Your task to perform on an android device: Open Amazon Image 0: 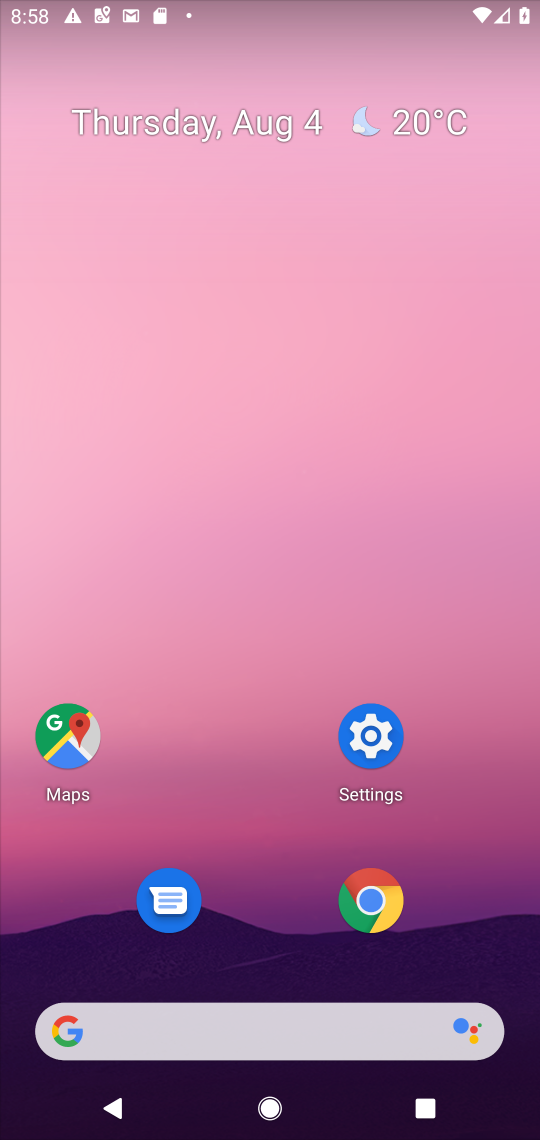
Step 0: click (371, 898)
Your task to perform on an android device: Open Amazon Image 1: 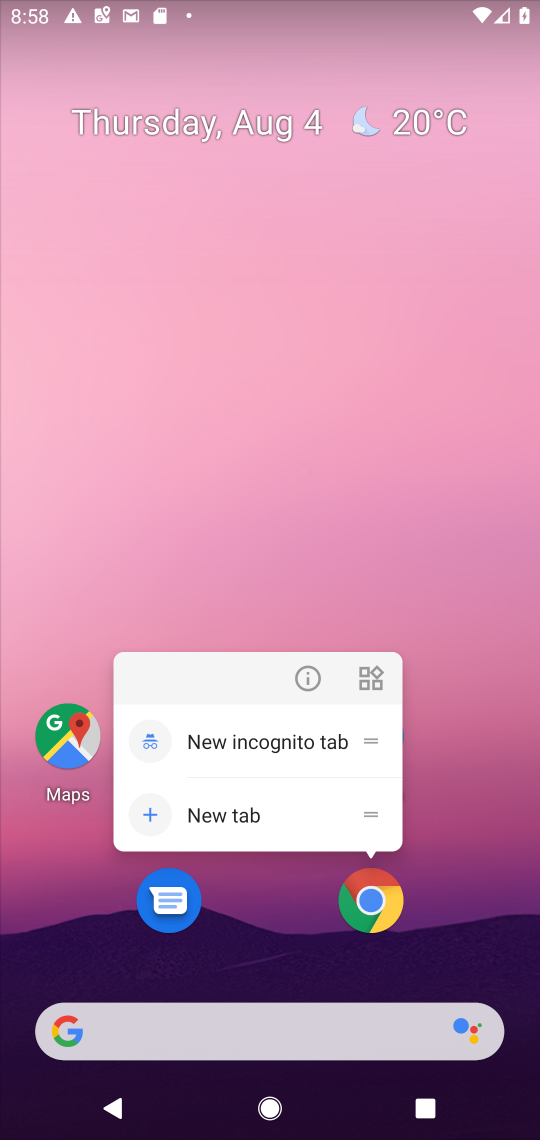
Step 1: click (371, 902)
Your task to perform on an android device: Open Amazon Image 2: 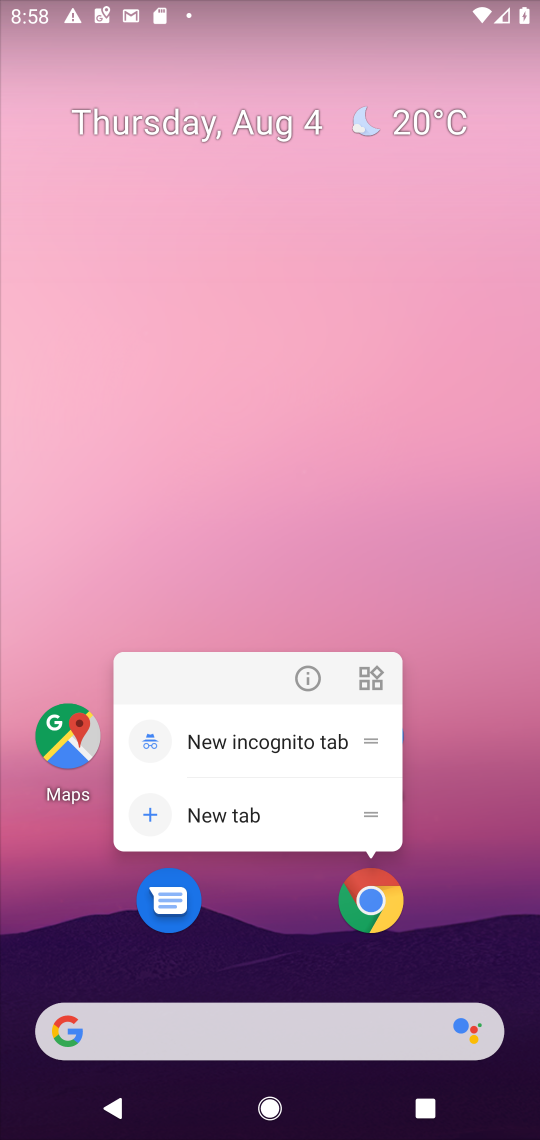
Step 2: click (371, 905)
Your task to perform on an android device: Open Amazon Image 3: 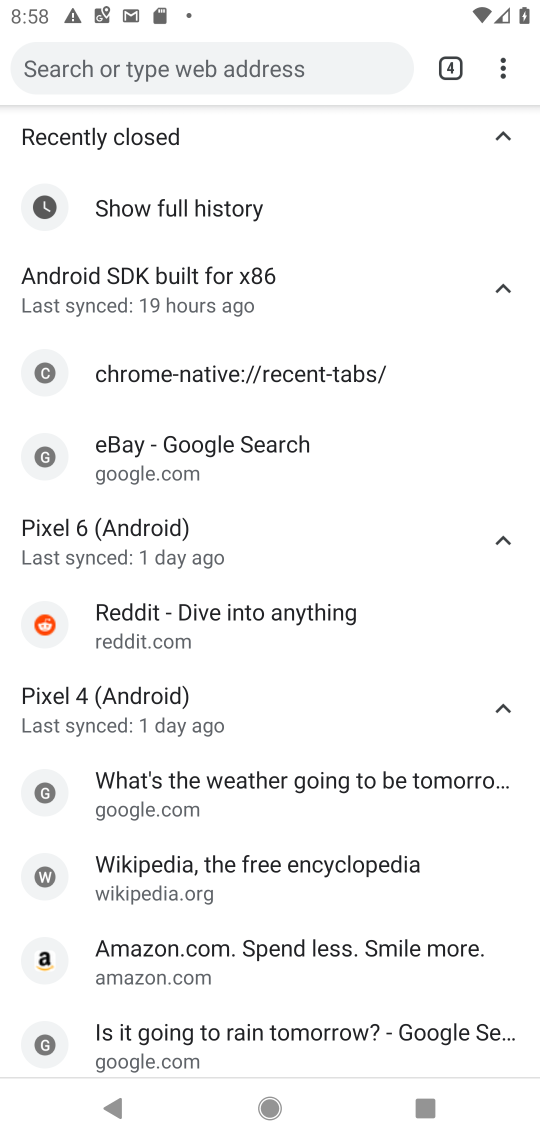
Step 3: drag from (507, 69) to (297, 233)
Your task to perform on an android device: Open Amazon Image 4: 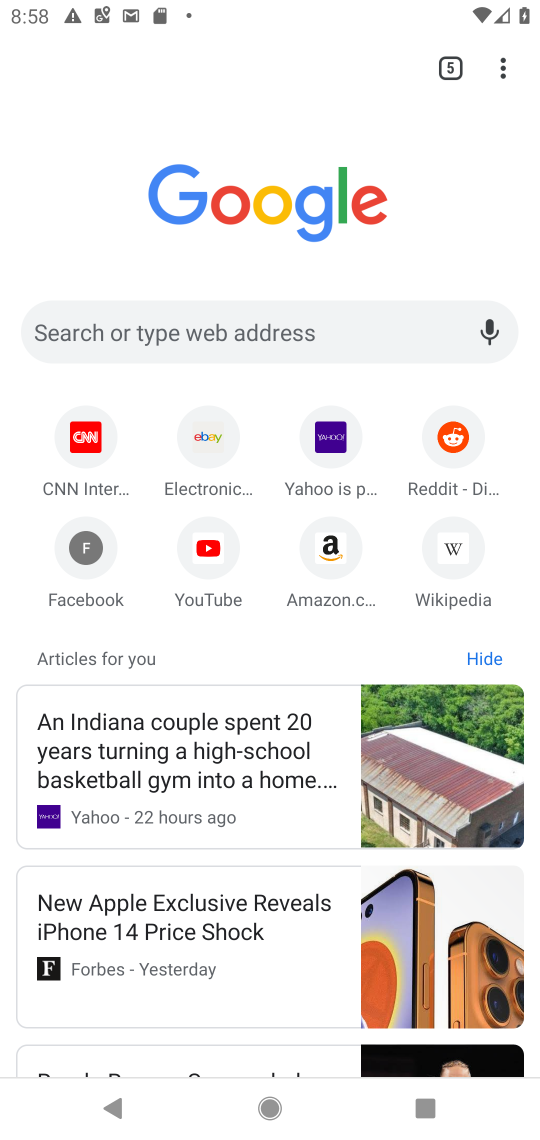
Step 4: click (335, 545)
Your task to perform on an android device: Open Amazon Image 5: 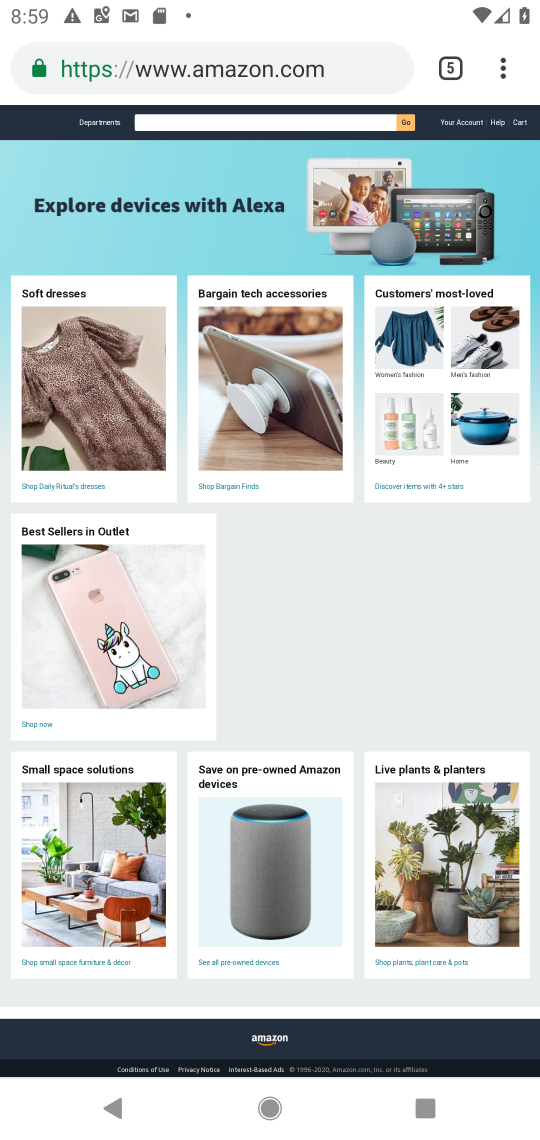
Step 5: task complete